Your task to perform on an android device: turn on bluetooth scan Image 0: 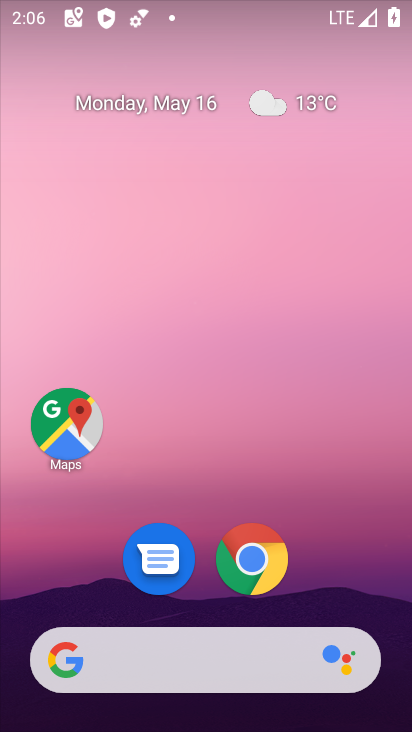
Step 0: drag from (170, 571) to (241, 19)
Your task to perform on an android device: turn on bluetooth scan Image 1: 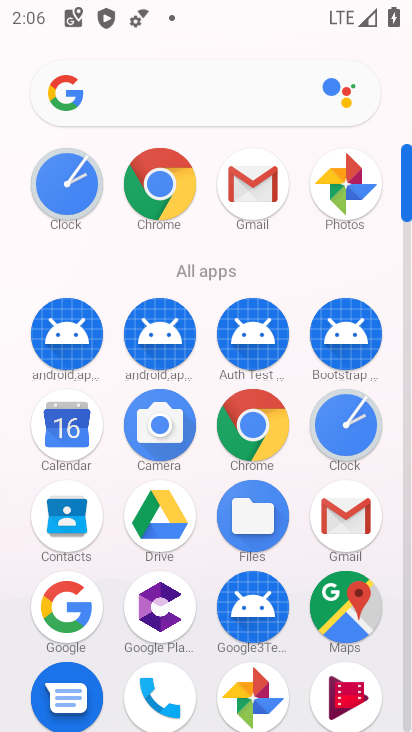
Step 1: drag from (215, 526) to (301, 96)
Your task to perform on an android device: turn on bluetooth scan Image 2: 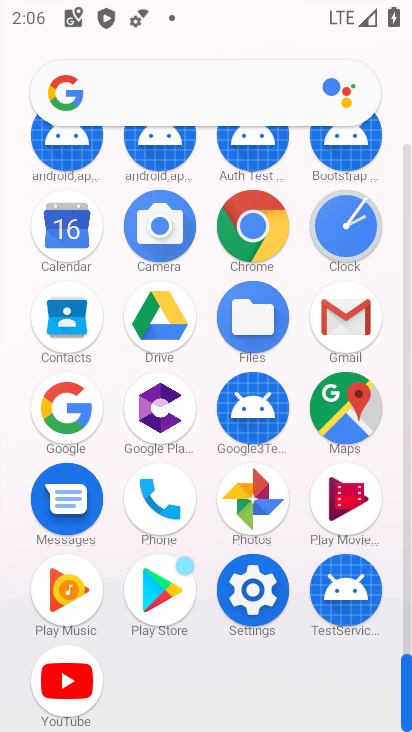
Step 2: click (253, 610)
Your task to perform on an android device: turn on bluetooth scan Image 3: 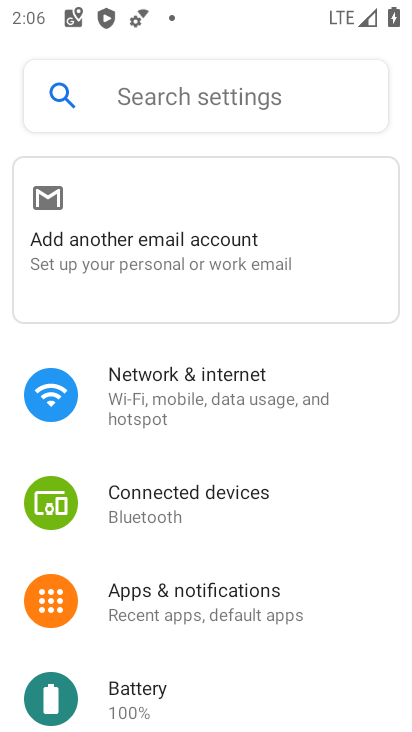
Step 3: click (123, 501)
Your task to perform on an android device: turn on bluetooth scan Image 4: 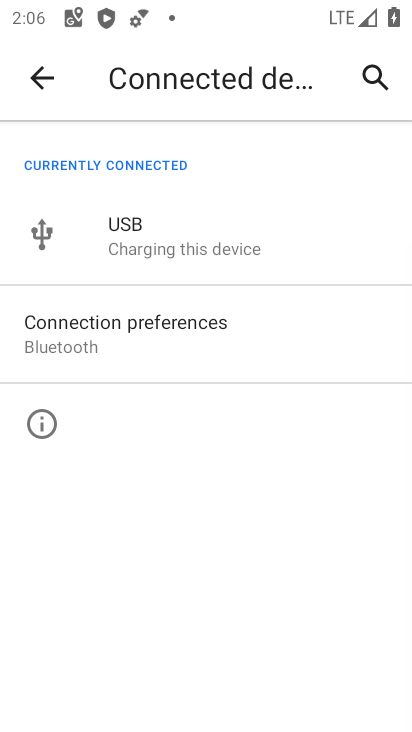
Step 4: click (84, 355)
Your task to perform on an android device: turn on bluetooth scan Image 5: 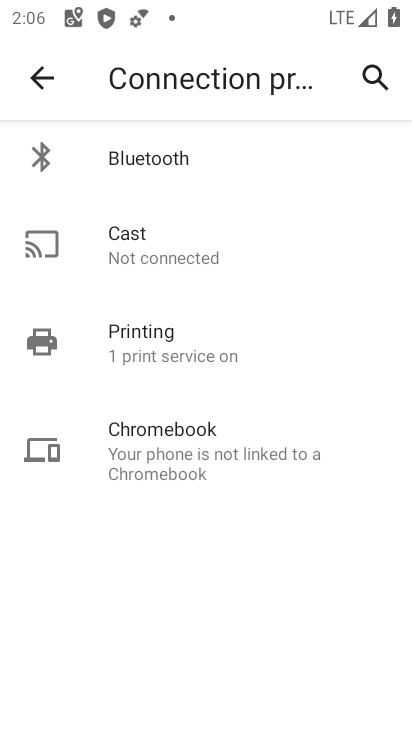
Step 5: click (168, 163)
Your task to perform on an android device: turn on bluetooth scan Image 6: 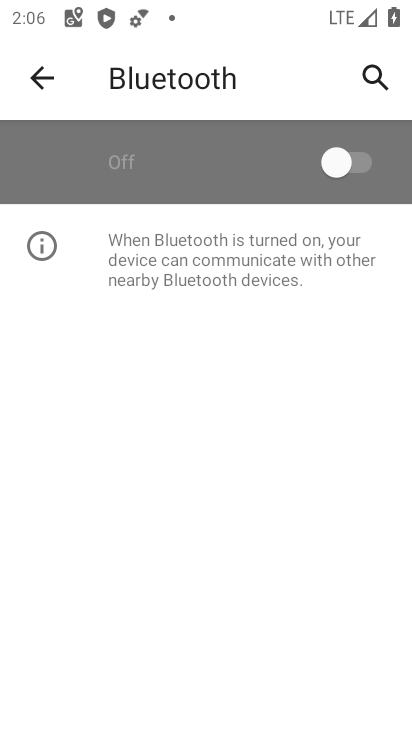
Step 6: click (344, 160)
Your task to perform on an android device: turn on bluetooth scan Image 7: 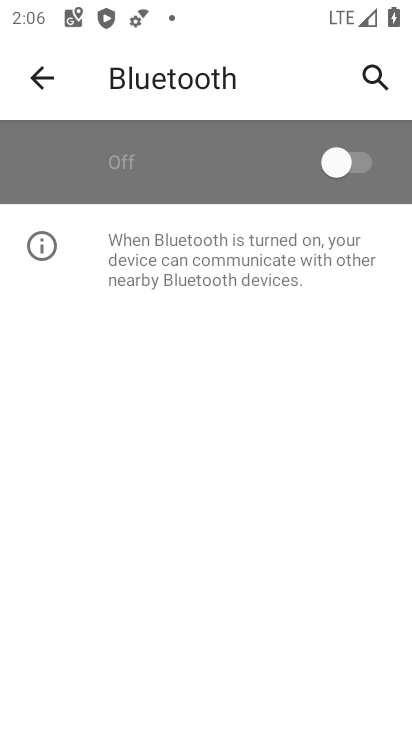
Step 7: task complete